Your task to perform on an android device: Open the web browser Image 0: 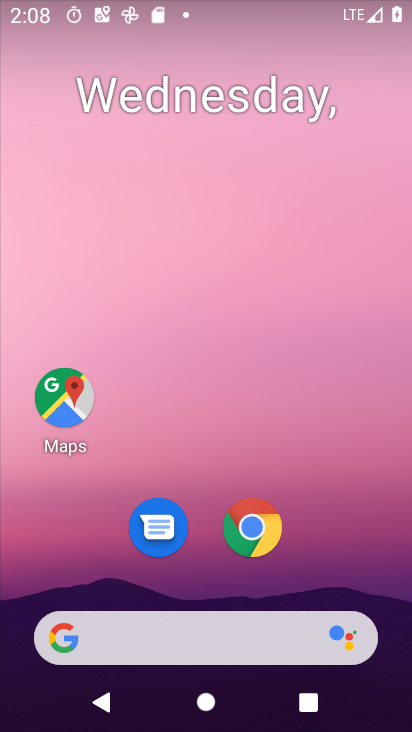
Step 0: drag from (119, 696) to (175, 12)
Your task to perform on an android device: Open the web browser Image 1: 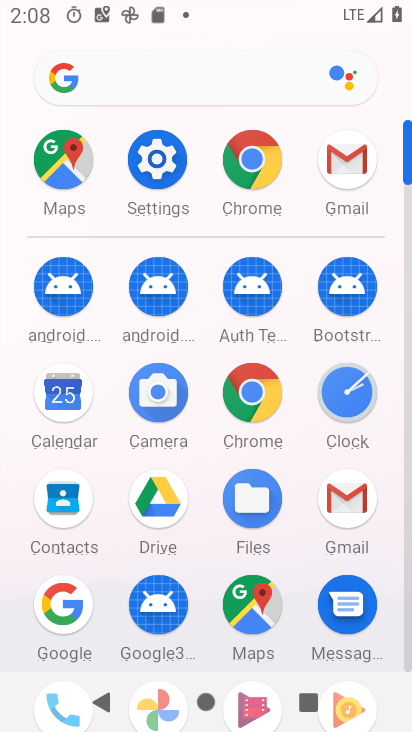
Step 1: click (267, 379)
Your task to perform on an android device: Open the web browser Image 2: 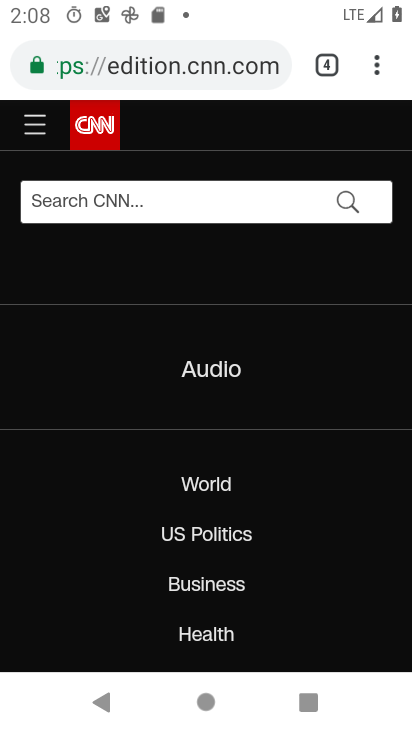
Step 2: task complete